Your task to perform on an android device: Search for a new highlighter Image 0: 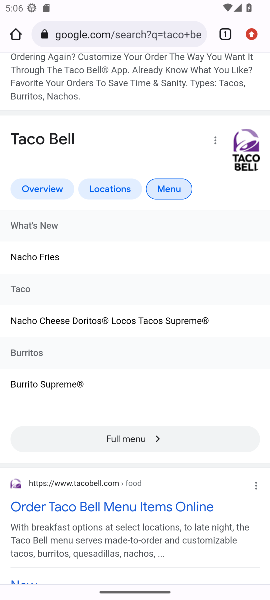
Step 0: click (144, 35)
Your task to perform on an android device: Search for a new highlighter Image 1: 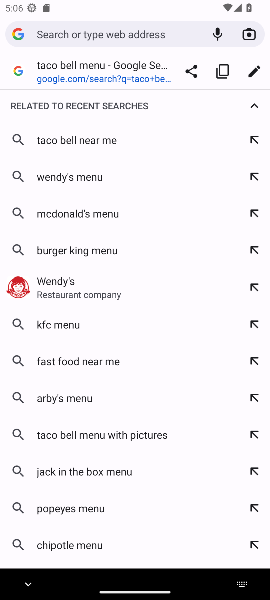
Step 1: type "new highlighter"
Your task to perform on an android device: Search for a new highlighter Image 2: 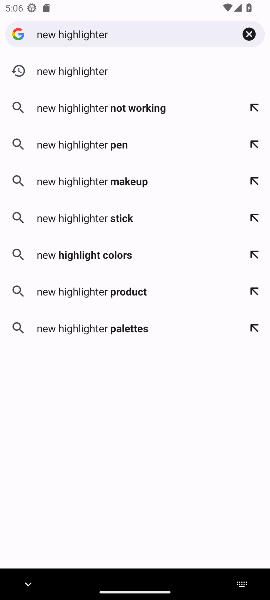
Step 2: click (98, 79)
Your task to perform on an android device: Search for a new highlighter Image 3: 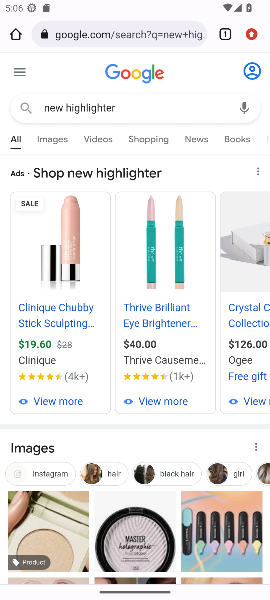
Step 3: click (145, 139)
Your task to perform on an android device: Search for a new highlighter Image 4: 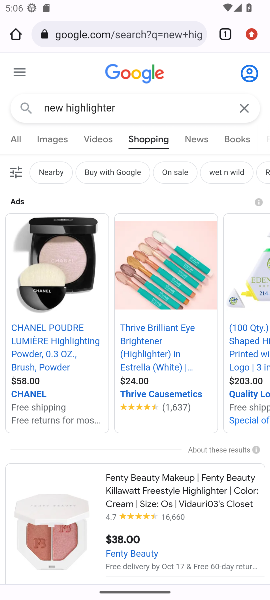
Step 4: task complete